Your task to perform on an android device: star an email in the gmail app Image 0: 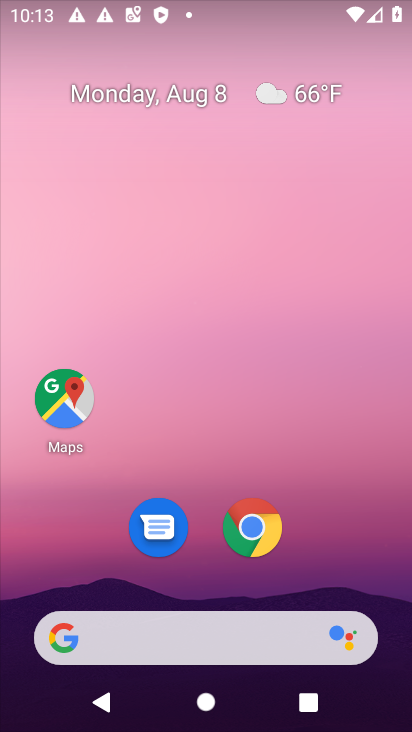
Step 0: drag from (392, 703) to (364, 213)
Your task to perform on an android device: star an email in the gmail app Image 1: 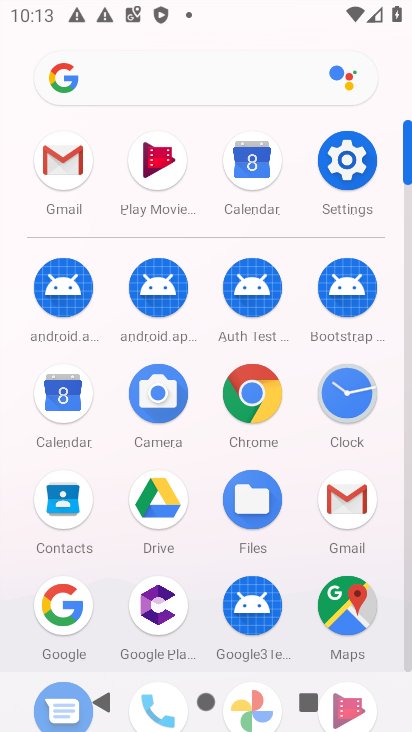
Step 1: click (335, 501)
Your task to perform on an android device: star an email in the gmail app Image 2: 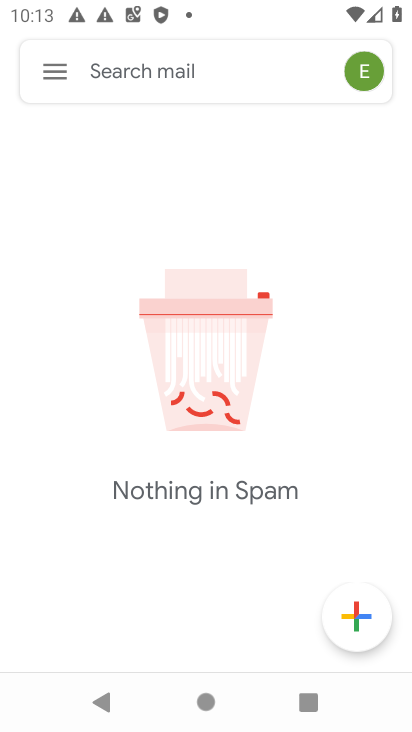
Step 2: press back button
Your task to perform on an android device: star an email in the gmail app Image 3: 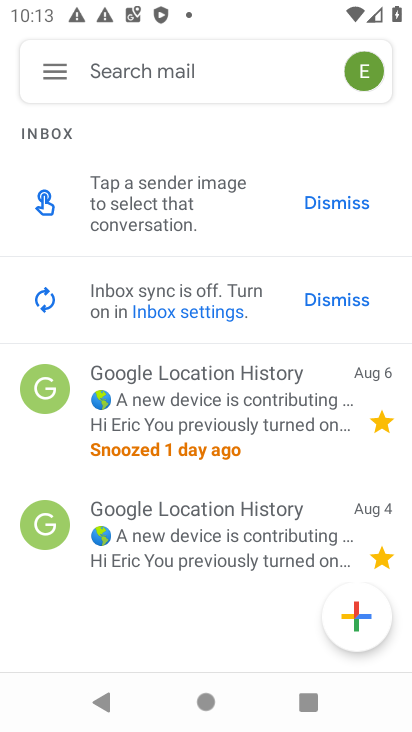
Step 3: press home button
Your task to perform on an android device: star an email in the gmail app Image 4: 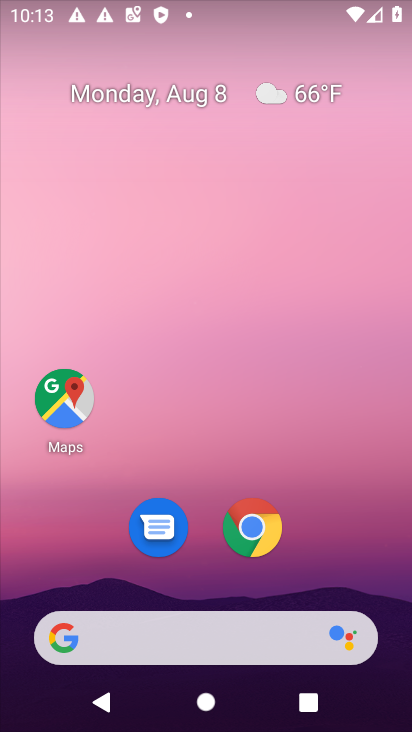
Step 4: drag from (387, 686) to (309, 121)
Your task to perform on an android device: star an email in the gmail app Image 5: 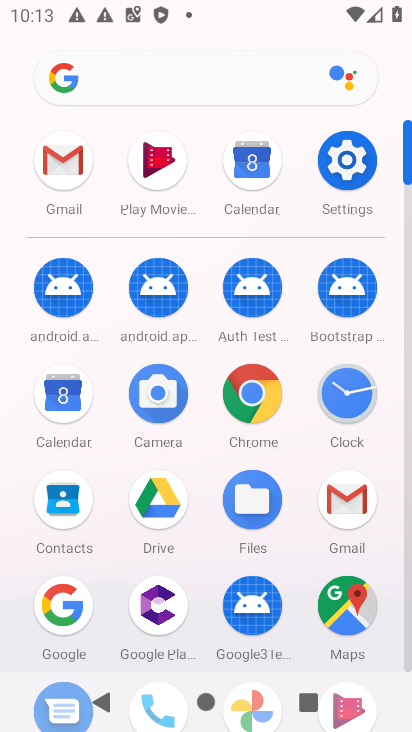
Step 5: click (334, 509)
Your task to perform on an android device: star an email in the gmail app Image 6: 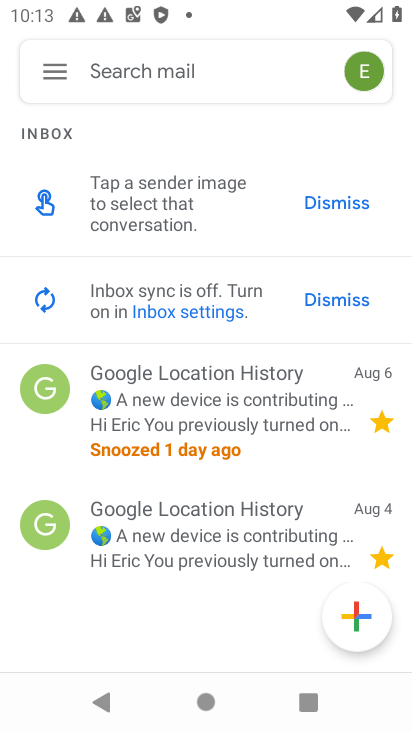
Step 6: task complete